Your task to perform on an android device: What's on my calendar today? Image 0: 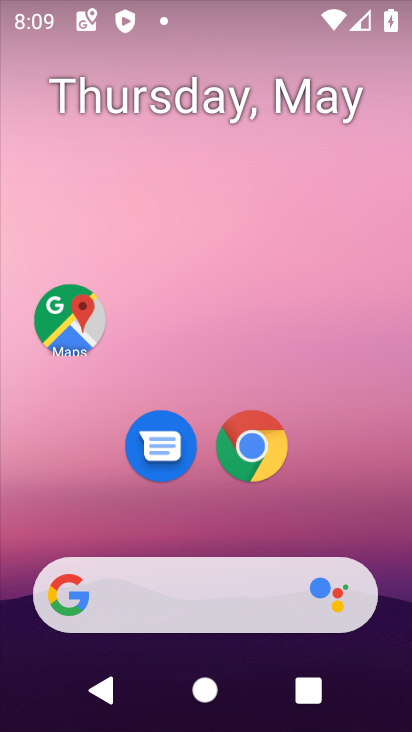
Step 0: drag from (360, 493) to (361, 123)
Your task to perform on an android device: What's on my calendar today? Image 1: 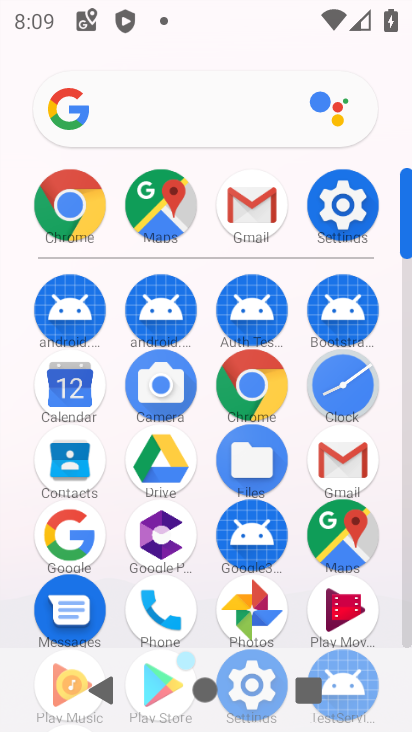
Step 1: click (46, 201)
Your task to perform on an android device: What's on my calendar today? Image 2: 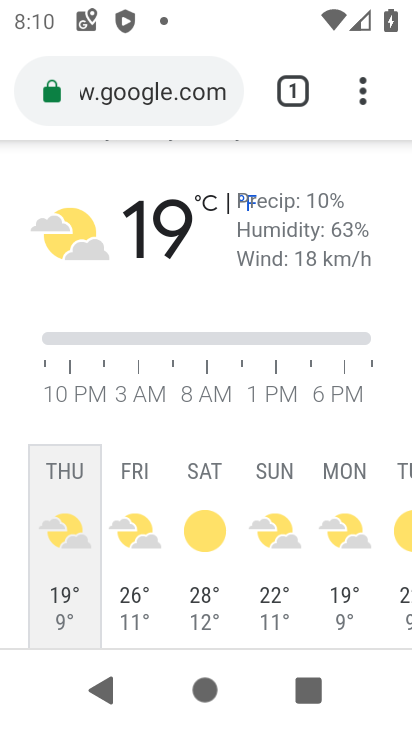
Step 2: click (174, 96)
Your task to perform on an android device: What's on my calendar today? Image 3: 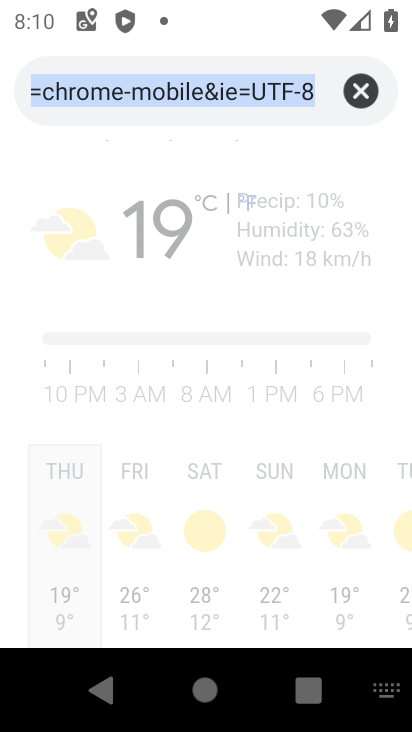
Step 3: click (361, 95)
Your task to perform on an android device: What's on my calendar today? Image 4: 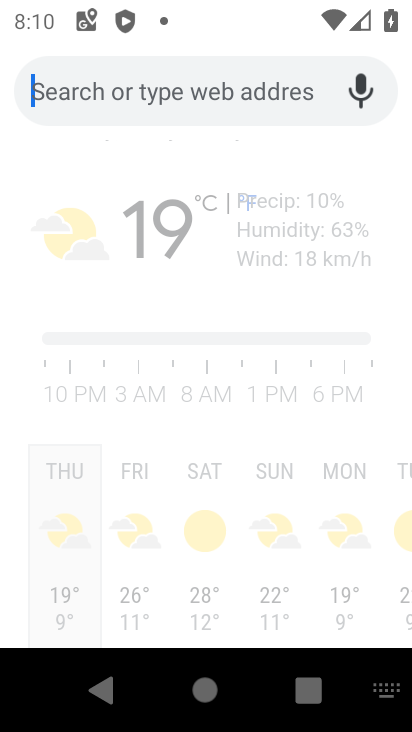
Step 4: type "what's on my calendar today"
Your task to perform on an android device: What's on my calendar today? Image 5: 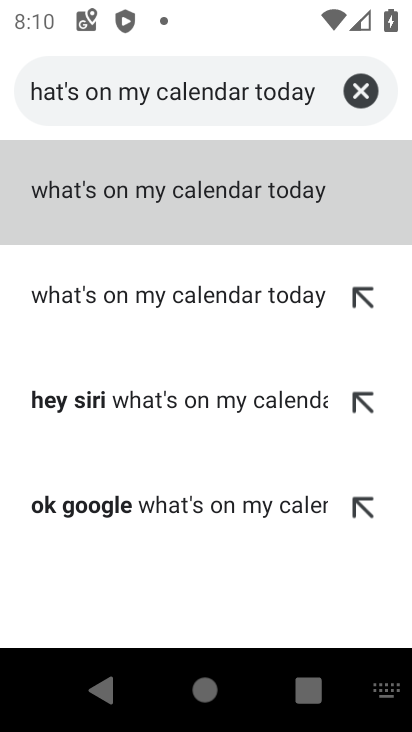
Step 5: click (153, 196)
Your task to perform on an android device: What's on my calendar today? Image 6: 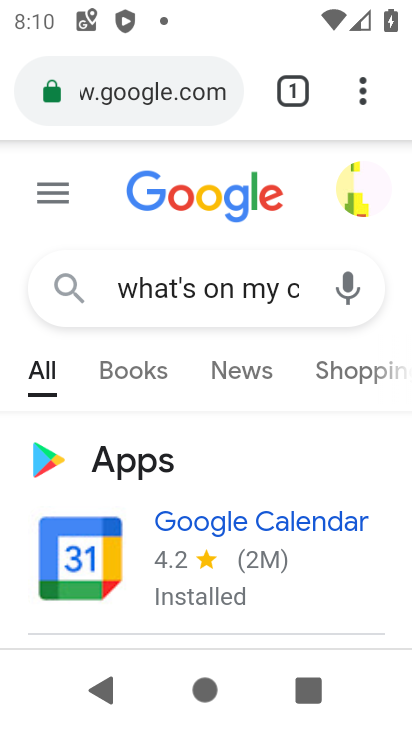
Step 6: task complete